Your task to perform on an android device: turn off airplane mode Image 0: 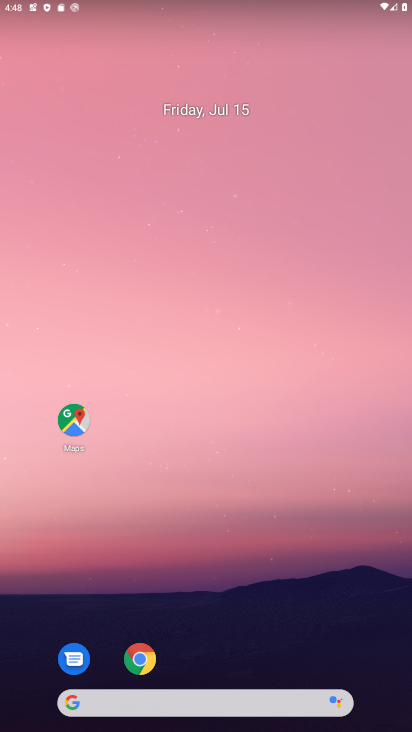
Step 0: drag from (252, 537) to (255, 15)
Your task to perform on an android device: turn off airplane mode Image 1: 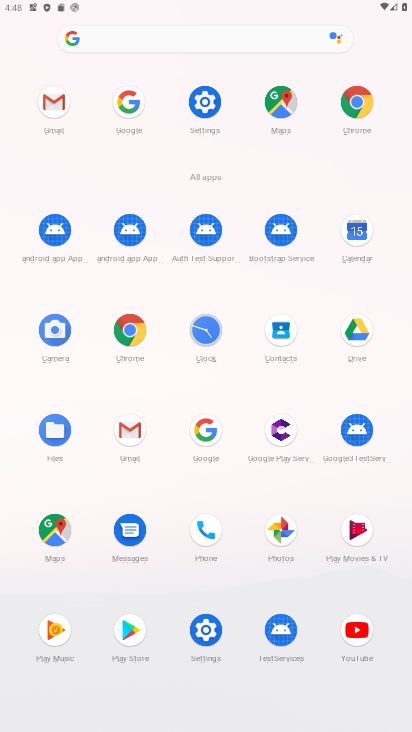
Step 1: click (195, 114)
Your task to perform on an android device: turn off airplane mode Image 2: 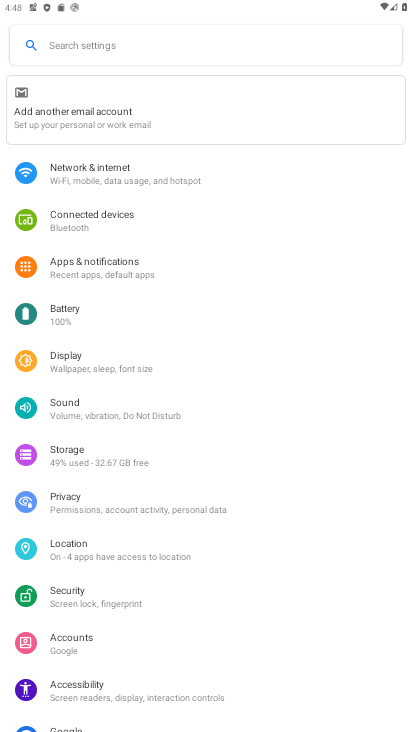
Step 2: click (128, 178)
Your task to perform on an android device: turn off airplane mode Image 3: 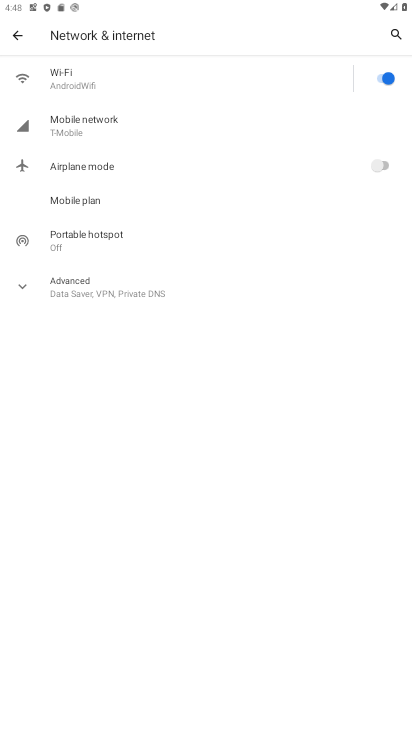
Step 3: task complete